Your task to perform on an android device: Open Maps and search for coffee Image 0: 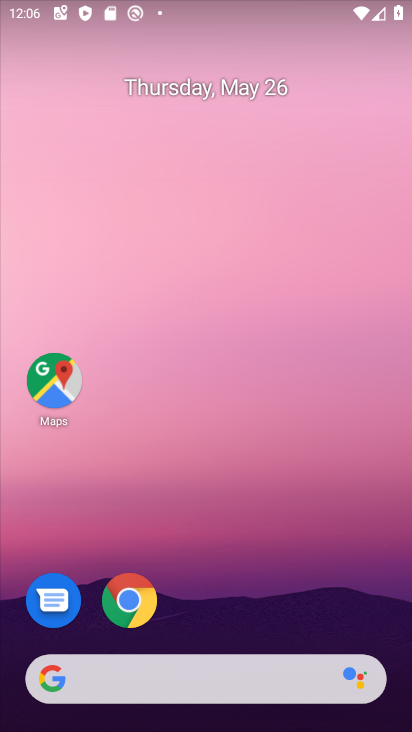
Step 0: click (51, 375)
Your task to perform on an android device: Open Maps and search for coffee Image 1: 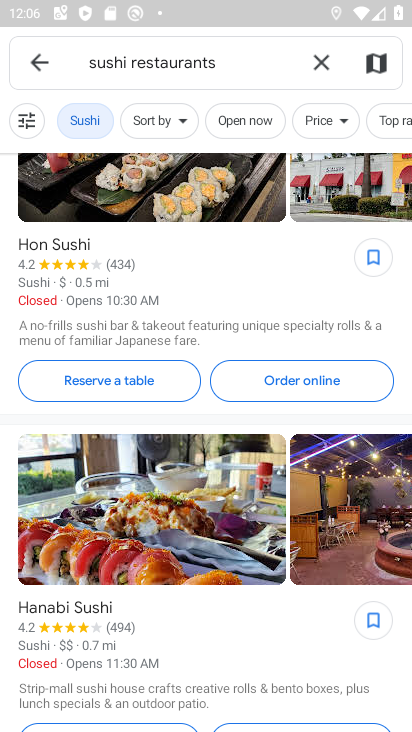
Step 1: click (243, 57)
Your task to perform on an android device: Open Maps and search for coffee Image 2: 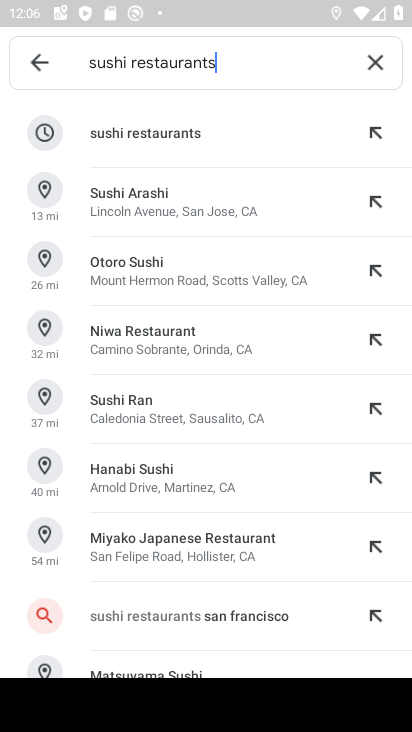
Step 2: click (367, 56)
Your task to perform on an android device: Open Maps and search for coffee Image 3: 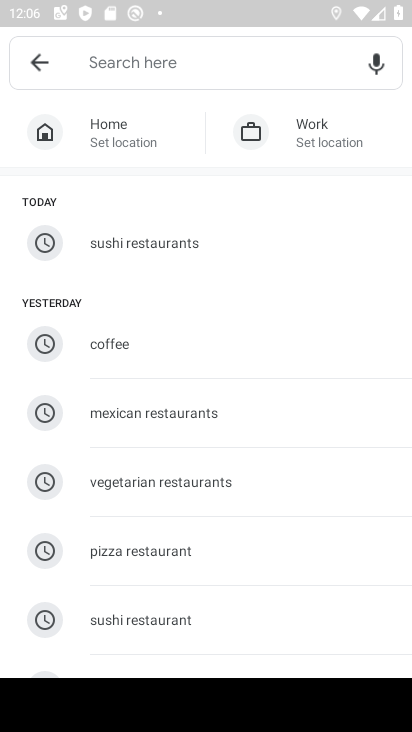
Step 3: click (123, 346)
Your task to perform on an android device: Open Maps and search for coffee Image 4: 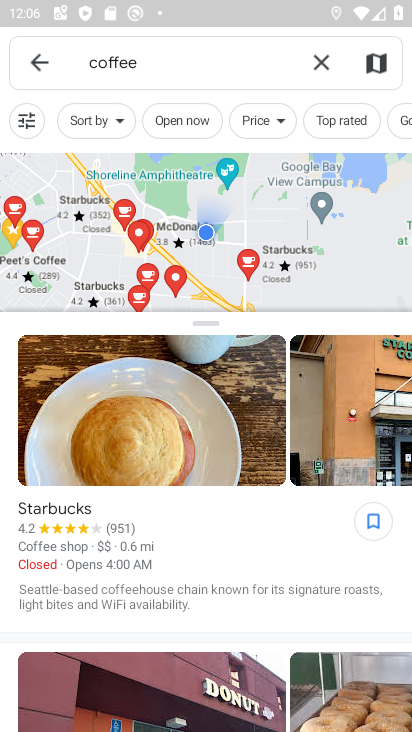
Step 4: task complete